Your task to perform on an android device: toggle data saver in the chrome app Image 0: 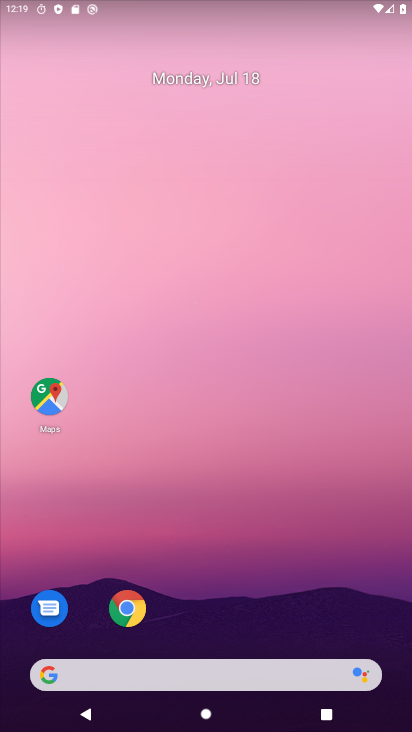
Step 0: drag from (282, 509) to (245, 58)
Your task to perform on an android device: toggle data saver in the chrome app Image 1: 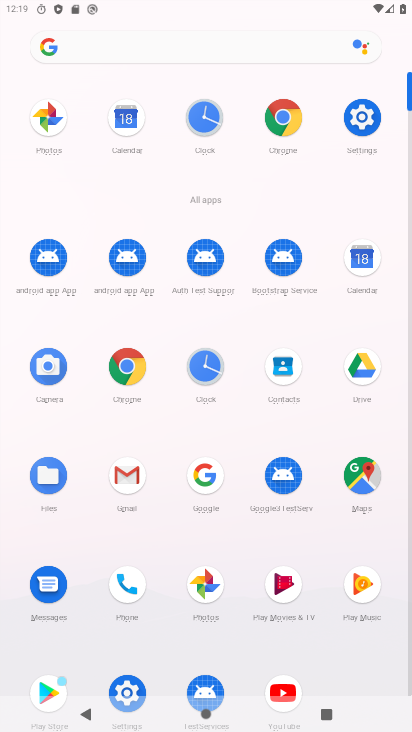
Step 1: click (301, 123)
Your task to perform on an android device: toggle data saver in the chrome app Image 2: 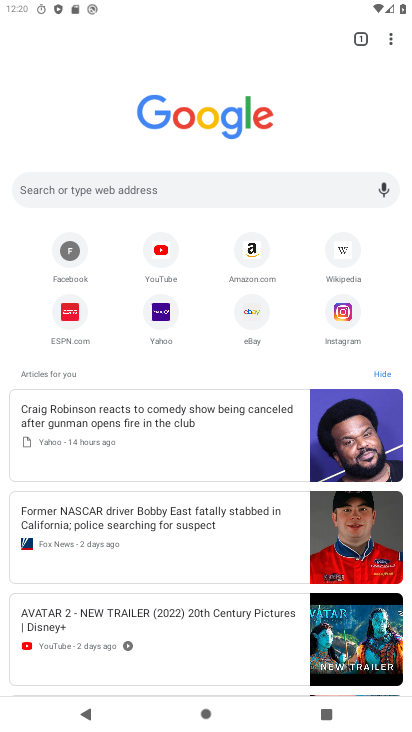
Step 2: drag from (388, 42) to (276, 332)
Your task to perform on an android device: toggle data saver in the chrome app Image 3: 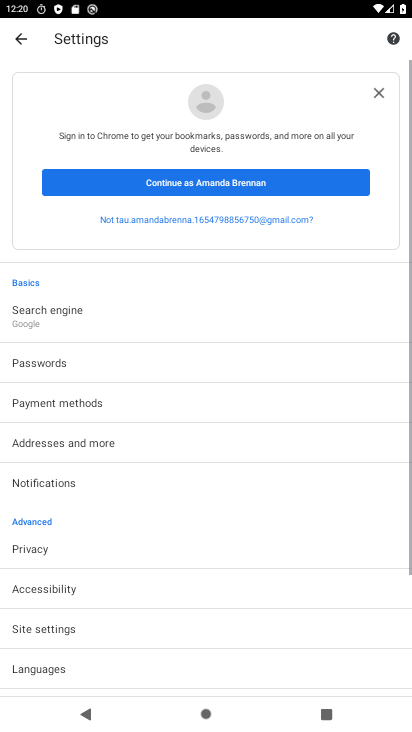
Step 3: drag from (128, 557) to (87, 296)
Your task to perform on an android device: toggle data saver in the chrome app Image 4: 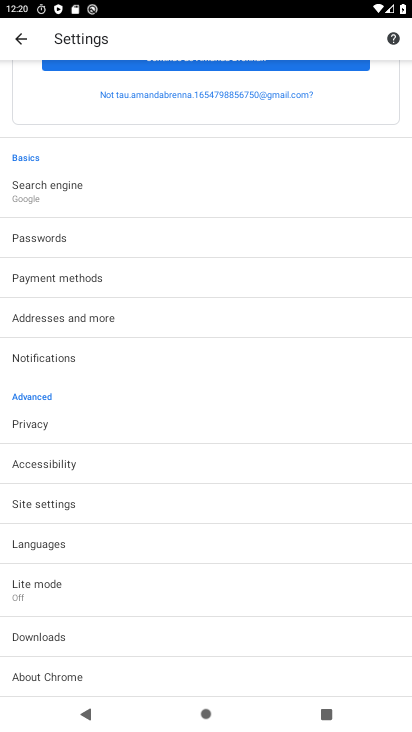
Step 4: click (96, 591)
Your task to perform on an android device: toggle data saver in the chrome app Image 5: 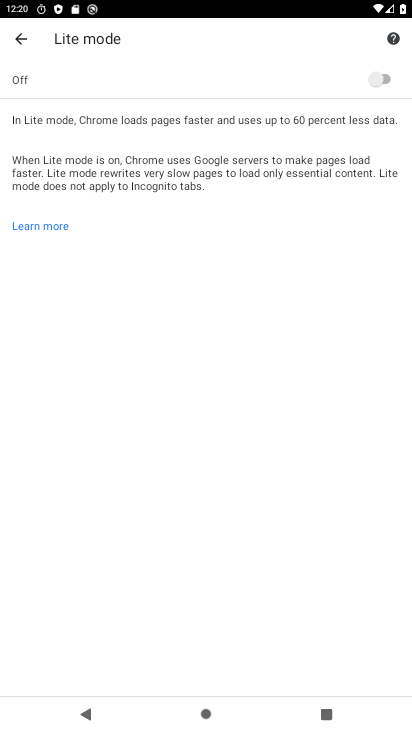
Step 5: click (376, 79)
Your task to perform on an android device: toggle data saver in the chrome app Image 6: 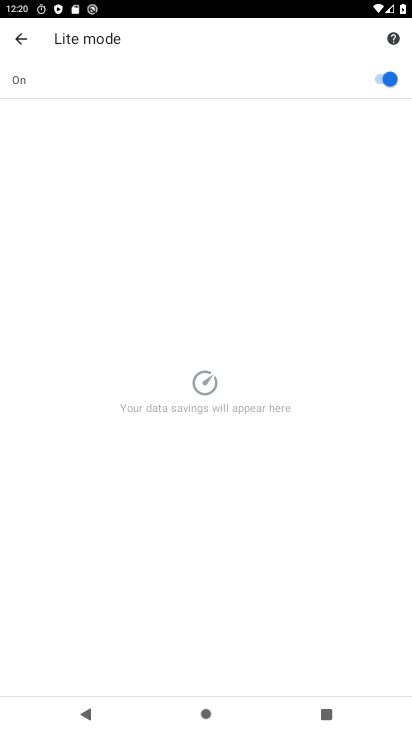
Step 6: task complete